Your task to perform on an android device: Open Google Chrome Image 0: 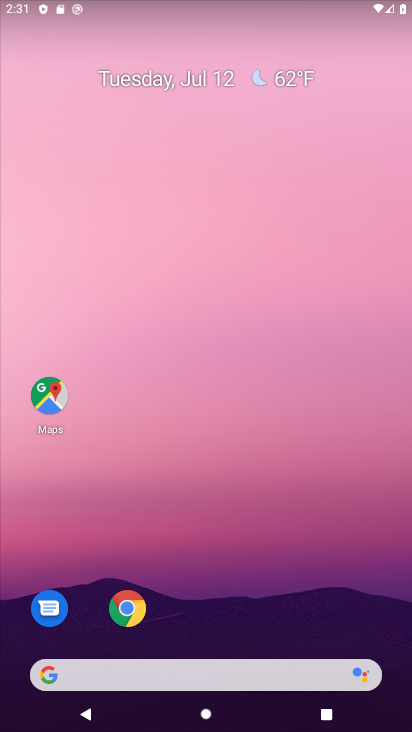
Step 0: press home button
Your task to perform on an android device: Open Google Chrome Image 1: 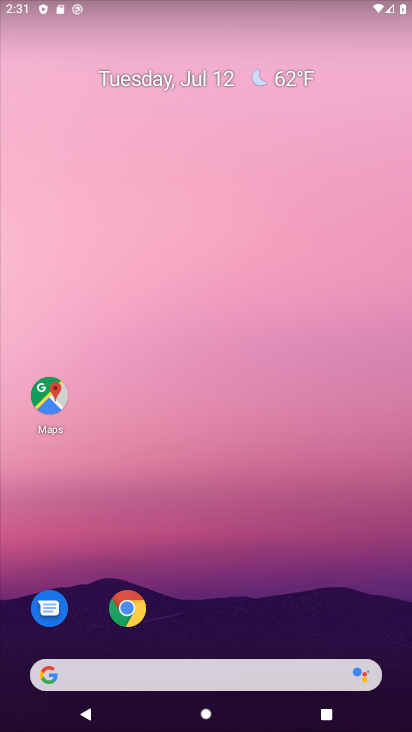
Step 1: click (133, 613)
Your task to perform on an android device: Open Google Chrome Image 2: 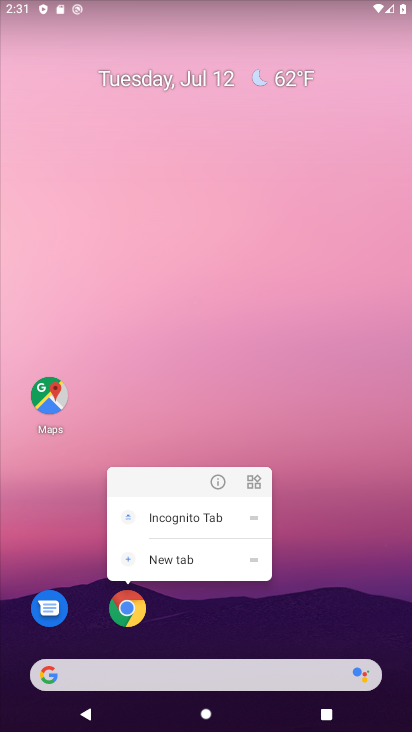
Step 2: click (136, 619)
Your task to perform on an android device: Open Google Chrome Image 3: 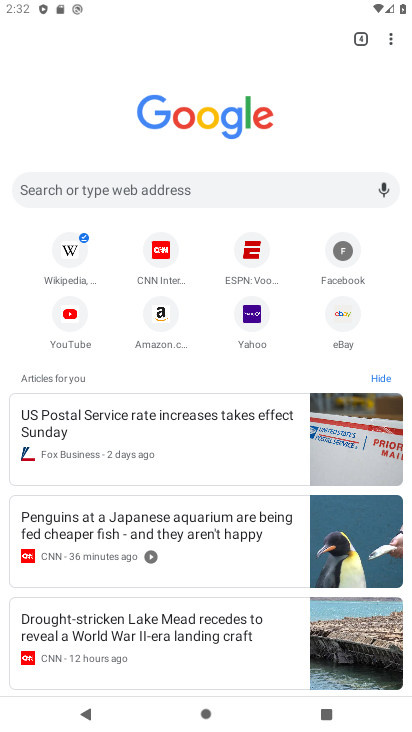
Step 3: task complete